Your task to perform on an android device: change your default location settings in chrome Image 0: 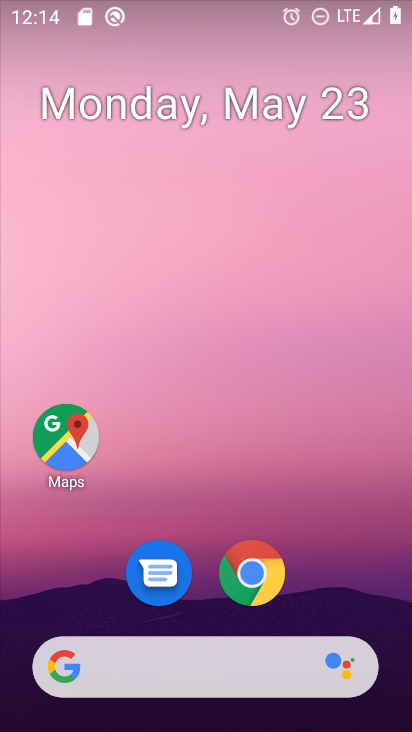
Step 0: click (242, 554)
Your task to perform on an android device: change your default location settings in chrome Image 1: 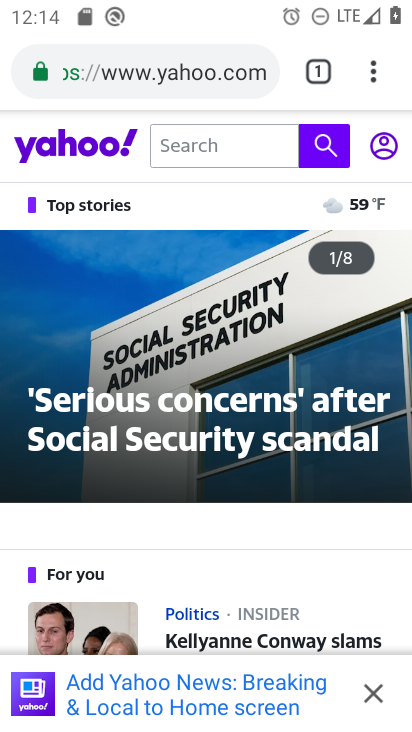
Step 1: click (370, 73)
Your task to perform on an android device: change your default location settings in chrome Image 2: 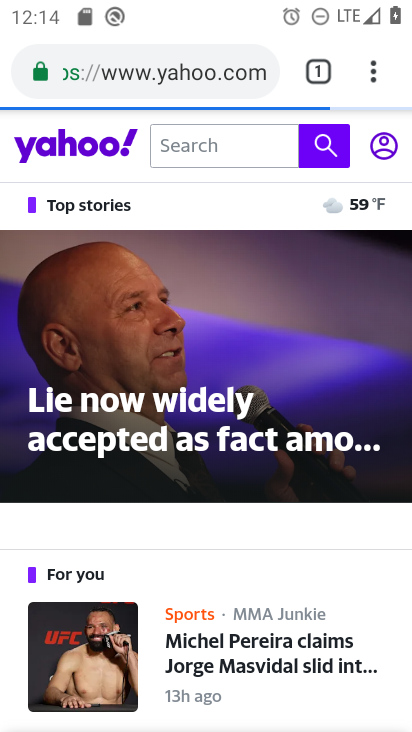
Step 2: click (371, 74)
Your task to perform on an android device: change your default location settings in chrome Image 3: 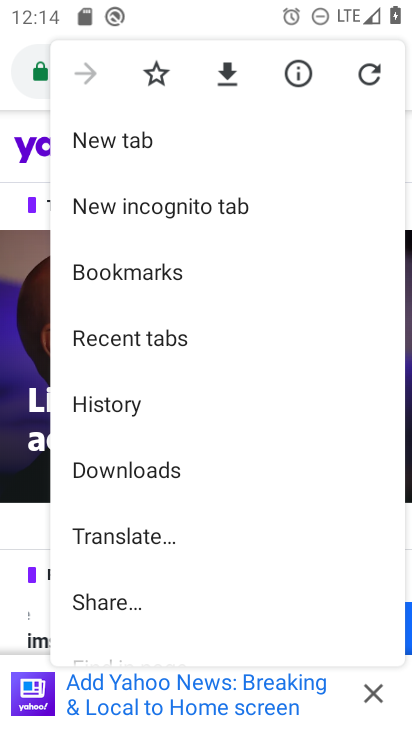
Step 3: drag from (193, 585) to (239, 86)
Your task to perform on an android device: change your default location settings in chrome Image 4: 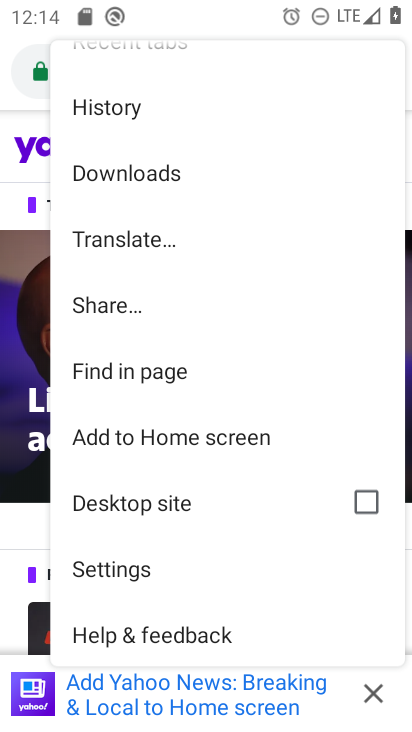
Step 4: click (162, 560)
Your task to perform on an android device: change your default location settings in chrome Image 5: 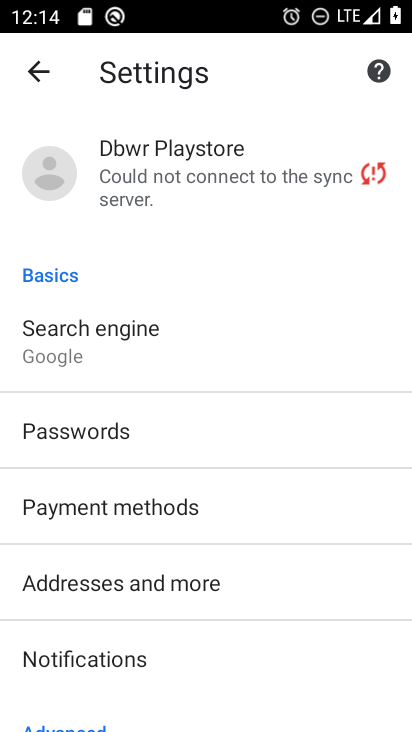
Step 5: drag from (177, 664) to (171, 277)
Your task to perform on an android device: change your default location settings in chrome Image 6: 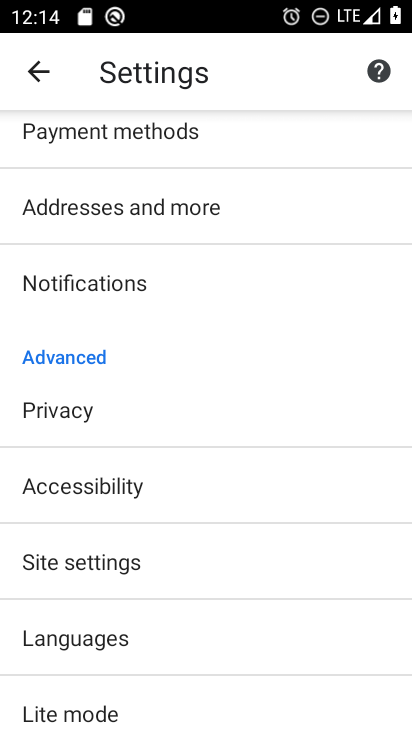
Step 6: click (130, 546)
Your task to perform on an android device: change your default location settings in chrome Image 7: 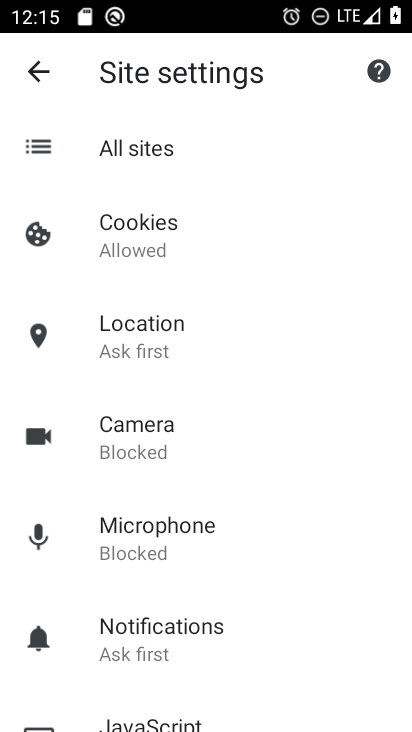
Step 7: click (187, 318)
Your task to perform on an android device: change your default location settings in chrome Image 8: 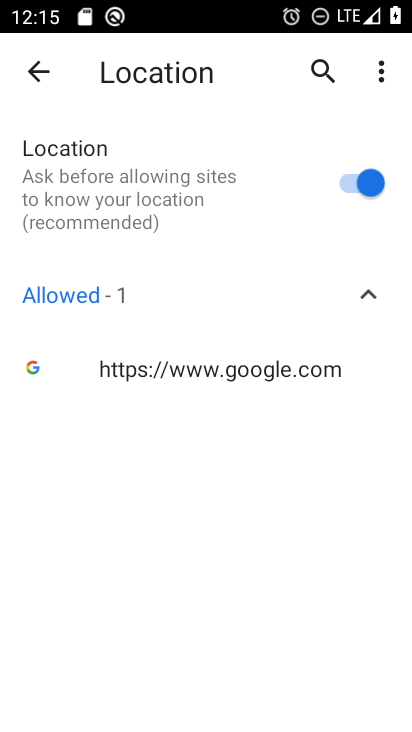
Step 8: click (344, 194)
Your task to perform on an android device: change your default location settings in chrome Image 9: 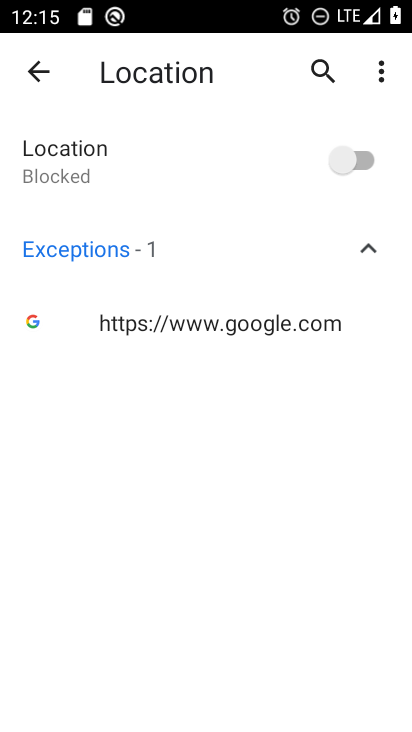
Step 9: task complete